Your task to perform on an android device: turn off priority inbox in the gmail app Image 0: 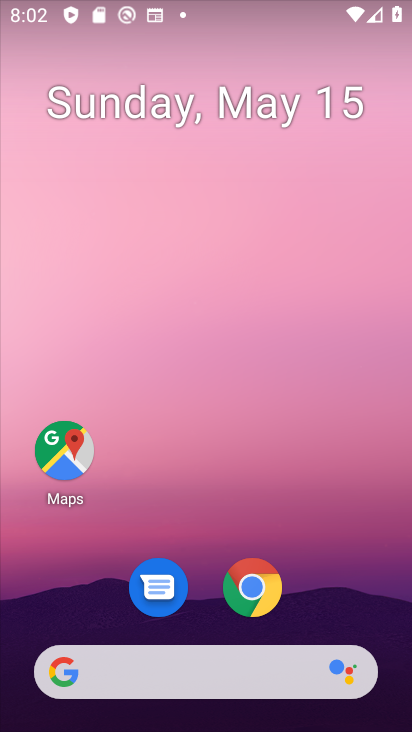
Step 0: drag from (177, 611) to (256, 190)
Your task to perform on an android device: turn off priority inbox in the gmail app Image 1: 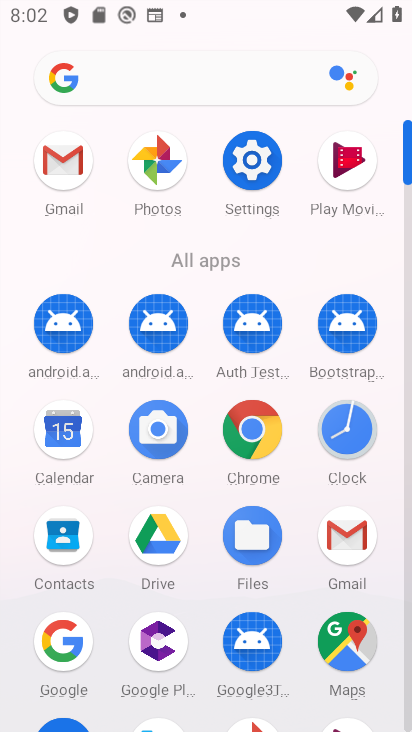
Step 1: click (340, 537)
Your task to perform on an android device: turn off priority inbox in the gmail app Image 2: 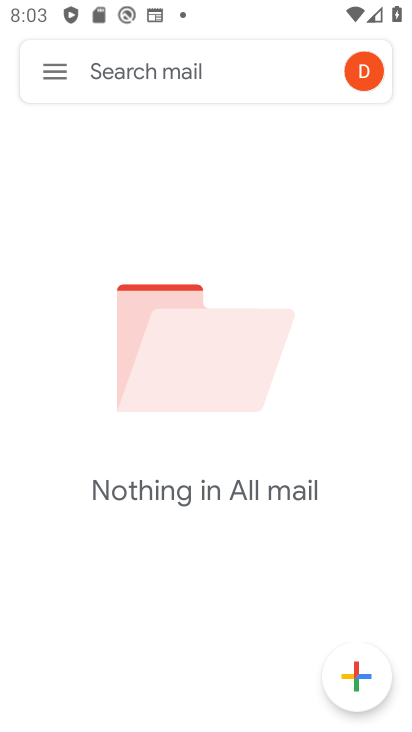
Step 2: click (59, 71)
Your task to perform on an android device: turn off priority inbox in the gmail app Image 3: 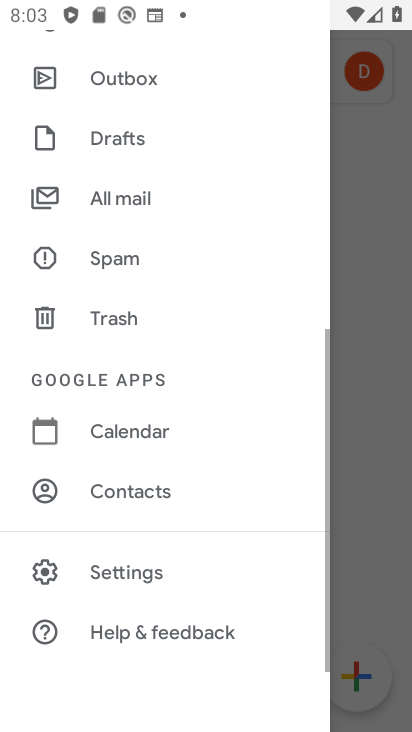
Step 3: click (142, 569)
Your task to perform on an android device: turn off priority inbox in the gmail app Image 4: 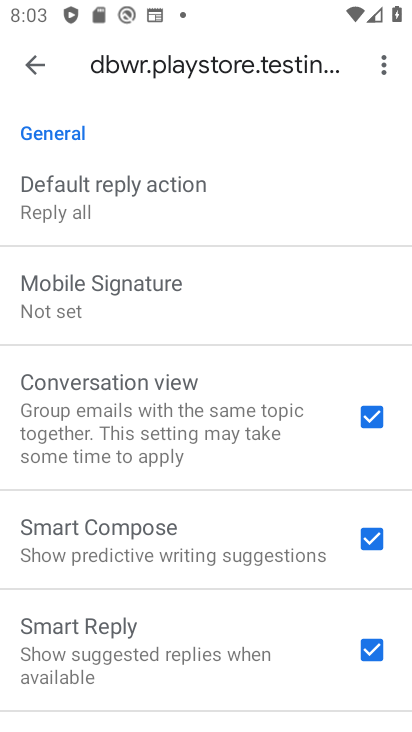
Step 4: drag from (208, 574) to (241, 617)
Your task to perform on an android device: turn off priority inbox in the gmail app Image 5: 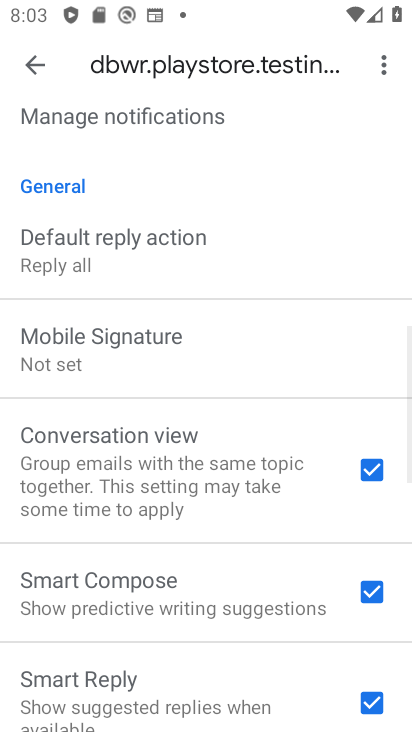
Step 5: drag from (228, 217) to (213, 551)
Your task to perform on an android device: turn off priority inbox in the gmail app Image 6: 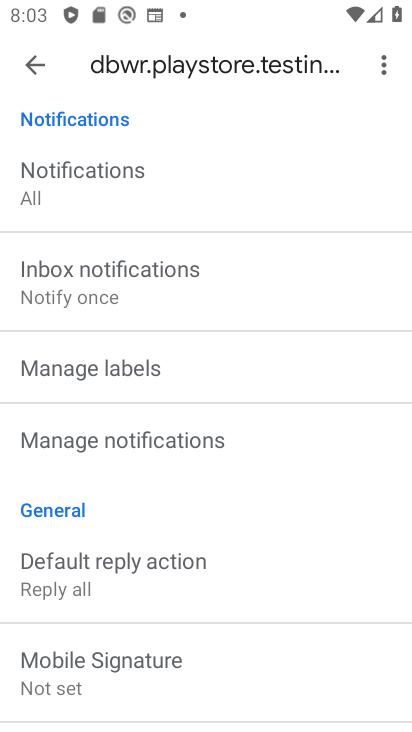
Step 6: drag from (260, 246) to (268, 591)
Your task to perform on an android device: turn off priority inbox in the gmail app Image 7: 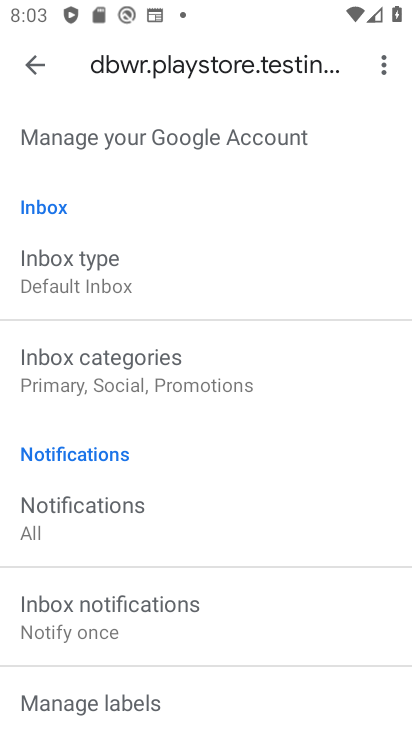
Step 7: click (146, 264)
Your task to perform on an android device: turn off priority inbox in the gmail app Image 8: 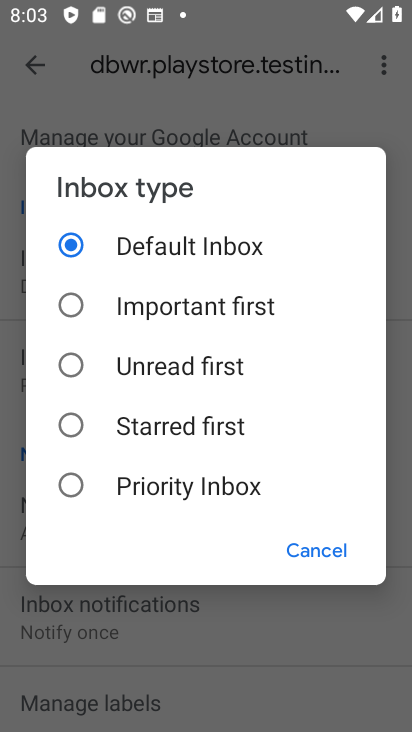
Step 8: click (178, 246)
Your task to perform on an android device: turn off priority inbox in the gmail app Image 9: 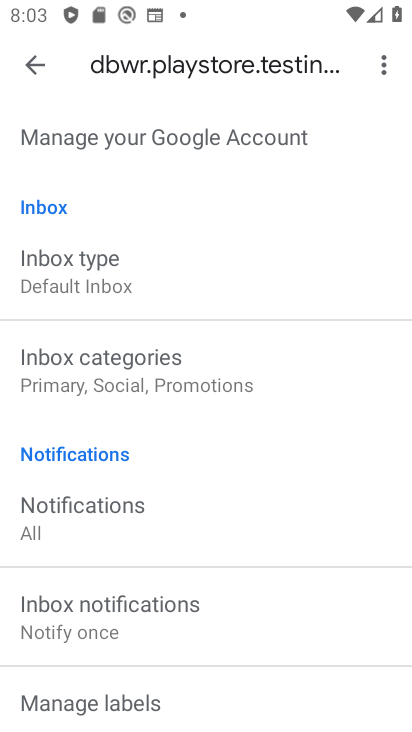
Step 9: task complete